Your task to perform on an android device: open a new tab in the chrome app Image 0: 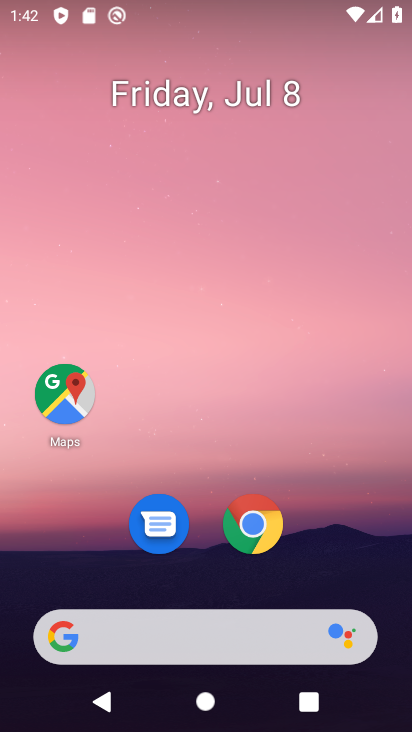
Step 0: click (259, 531)
Your task to perform on an android device: open a new tab in the chrome app Image 1: 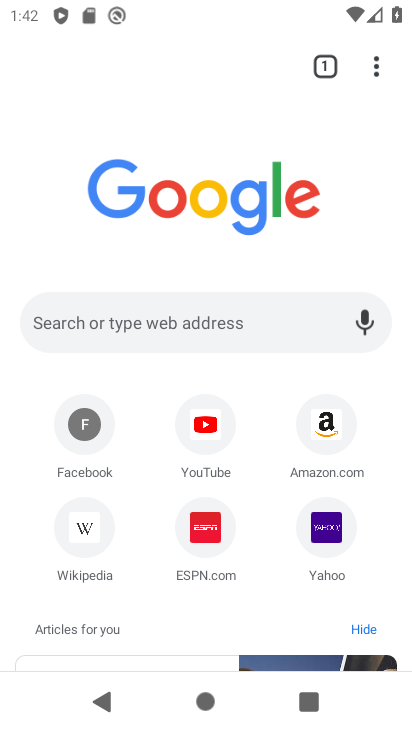
Step 1: click (381, 74)
Your task to perform on an android device: open a new tab in the chrome app Image 2: 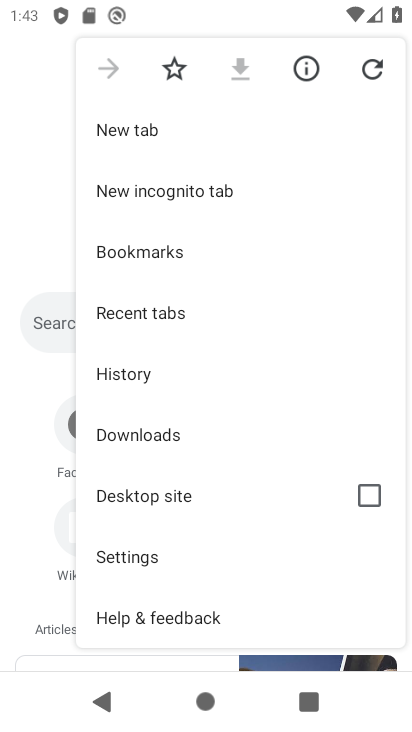
Step 2: click (171, 128)
Your task to perform on an android device: open a new tab in the chrome app Image 3: 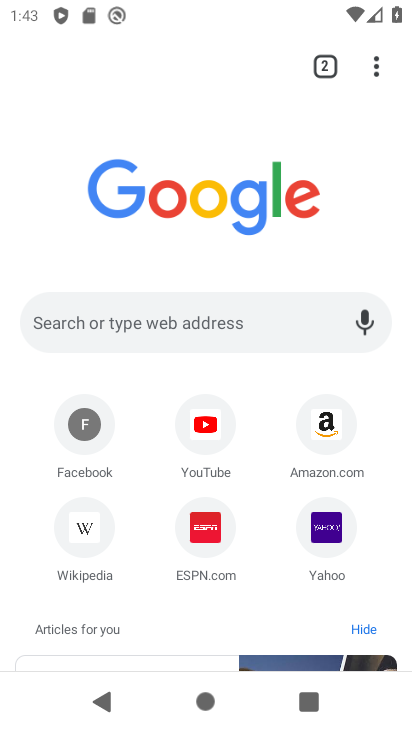
Step 3: task complete